Your task to perform on an android device: Add "bose soundsport free" to the cart on walmart.com Image 0: 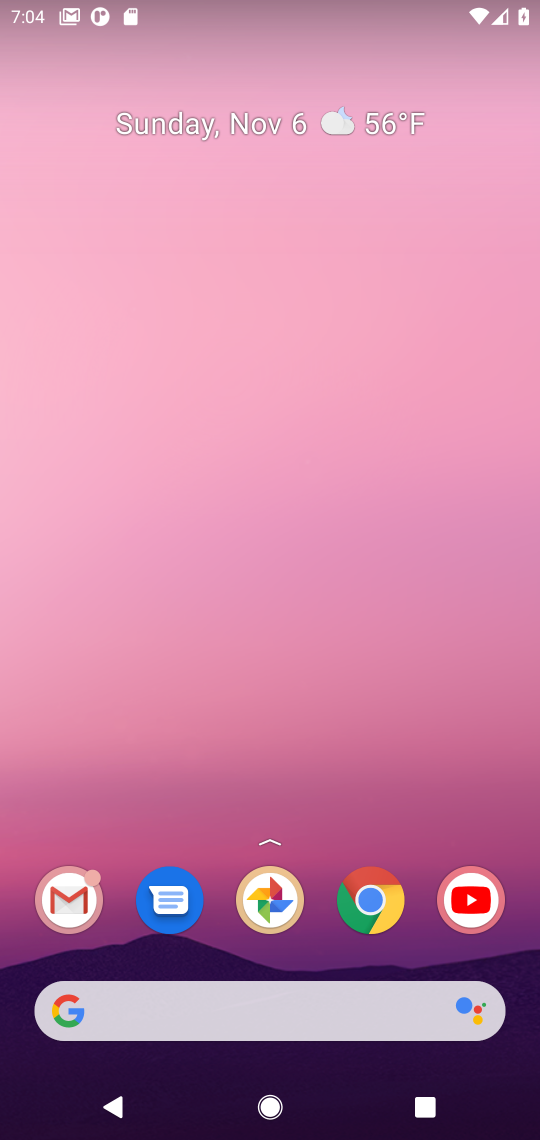
Step 0: drag from (324, 37) to (483, 769)
Your task to perform on an android device: Add "bose soundsport free" to the cart on walmart.com Image 1: 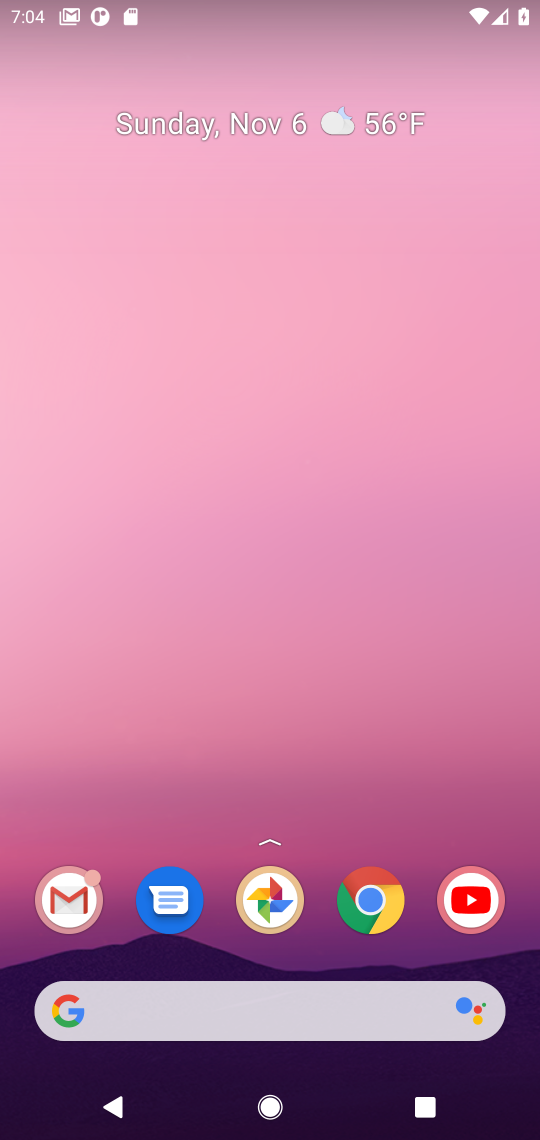
Step 1: drag from (312, 949) to (407, 119)
Your task to perform on an android device: Add "bose soundsport free" to the cart on walmart.com Image 2: 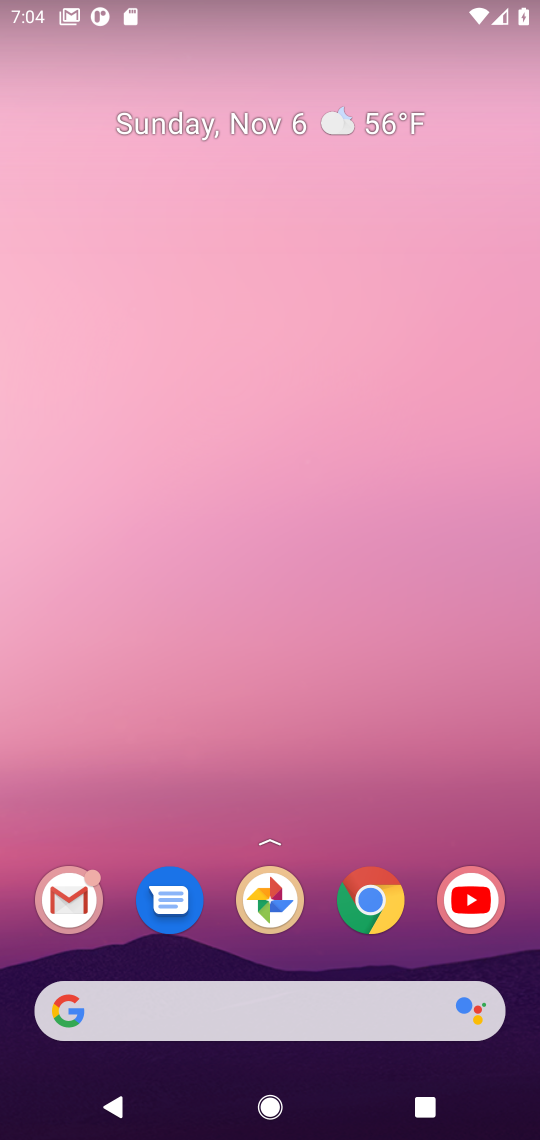
Step 2: drag from (228, 932) to (224, 66)
Your task to perform on an android device: Add "bose soundsport free" to the cart on walmart.com Image 3: 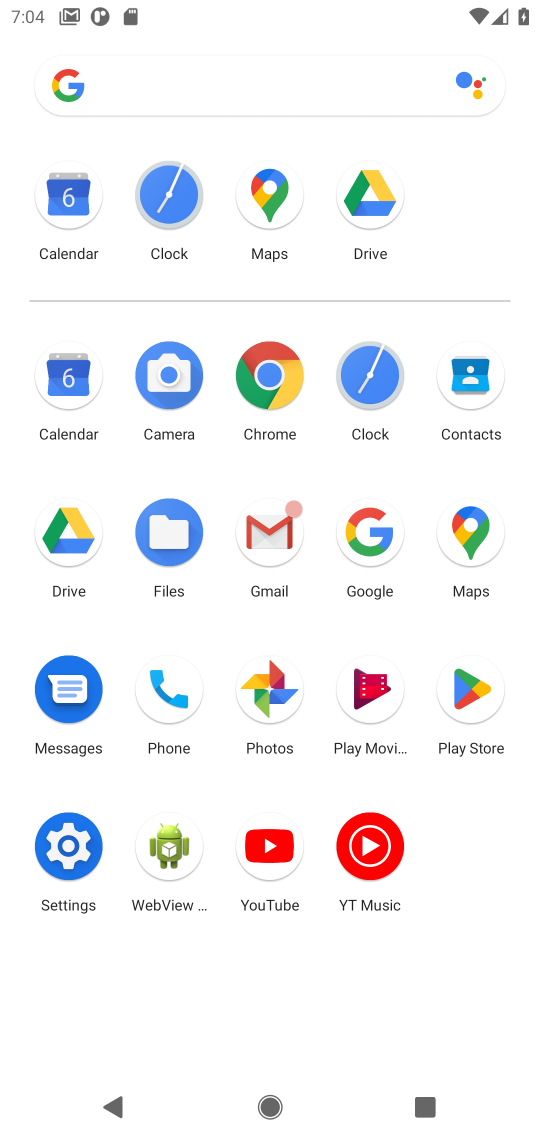
Step 3: click (276, 372)
Your task to perform on an android device: Add "bose soundsport free" to the cart on walmart.com Image 4: 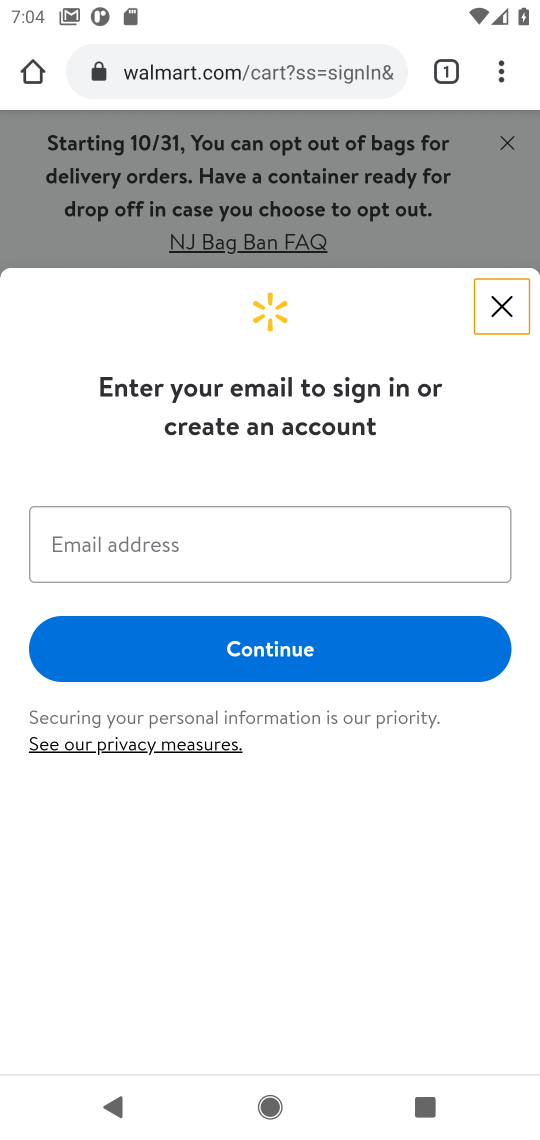
Step 4: click (326, 66)
Your task to perform on an android device: Add "bose soundsport free" to the cart on walmart.com Image 5: 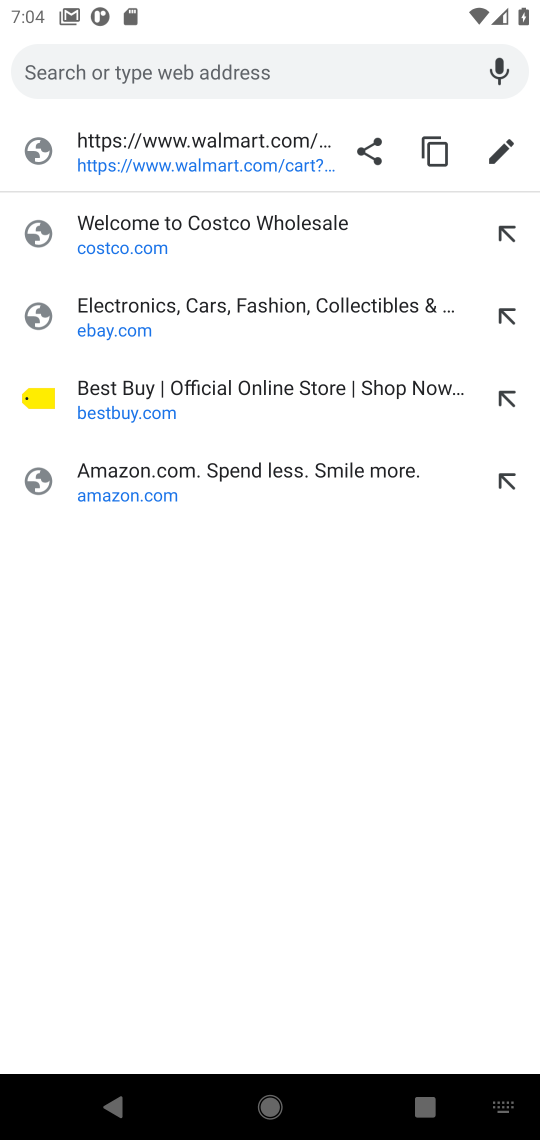
Step 5: type "walmart.com"
Your task to perform on an android device: Add "bose soundsport free" to the cart on walmart.com Image 6: 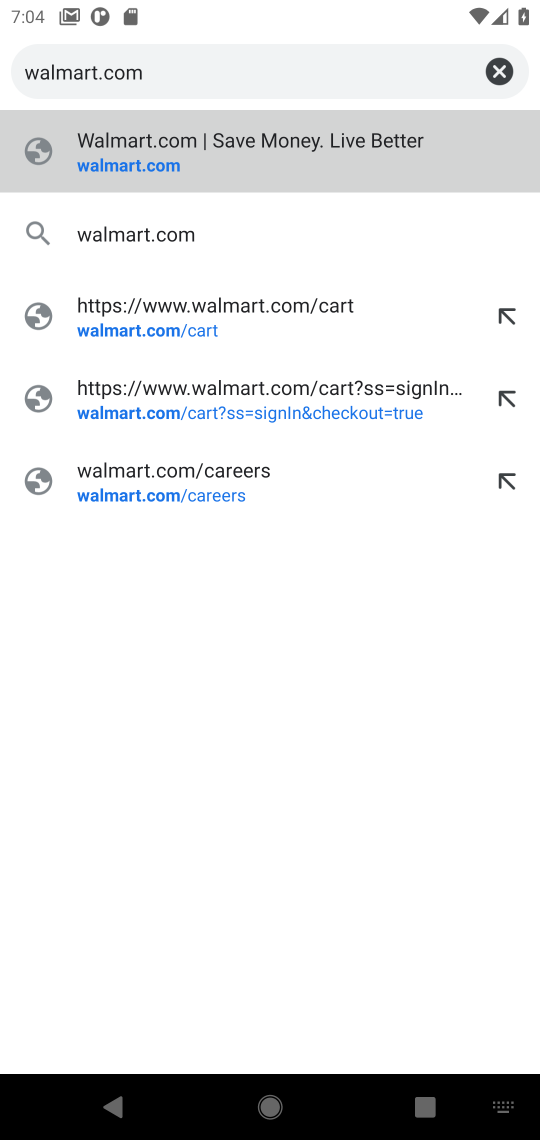
Step 6: press enter
Your task to perform on an android device: Add "bose soundsport free" to the cart on walmart.com Image 7: 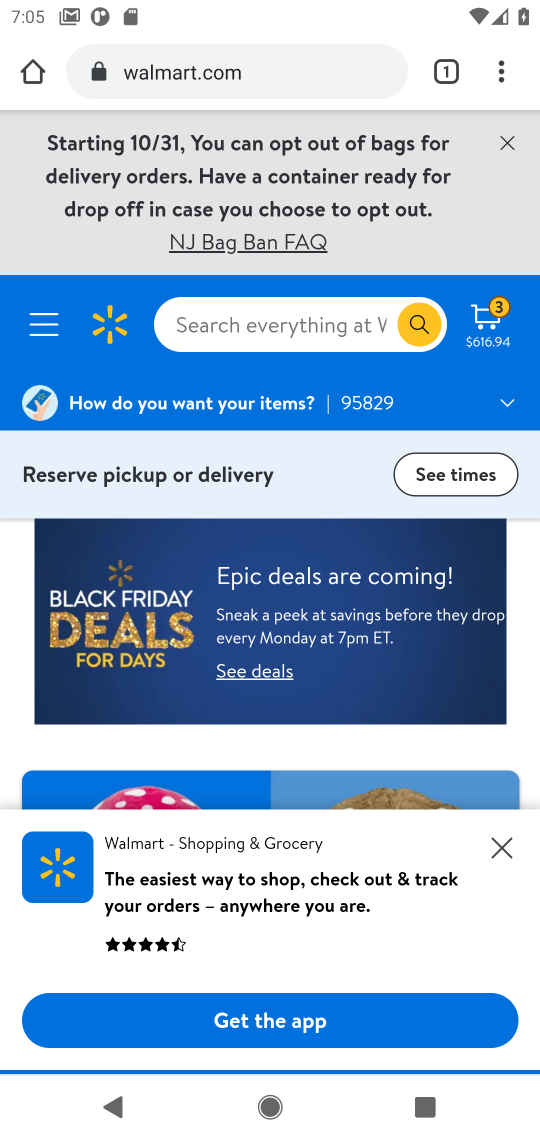
Step 7: click (321, 317)
Your task to perform on an android device: Add "bose soundsport free" to the cart on walmart.com Image 8: 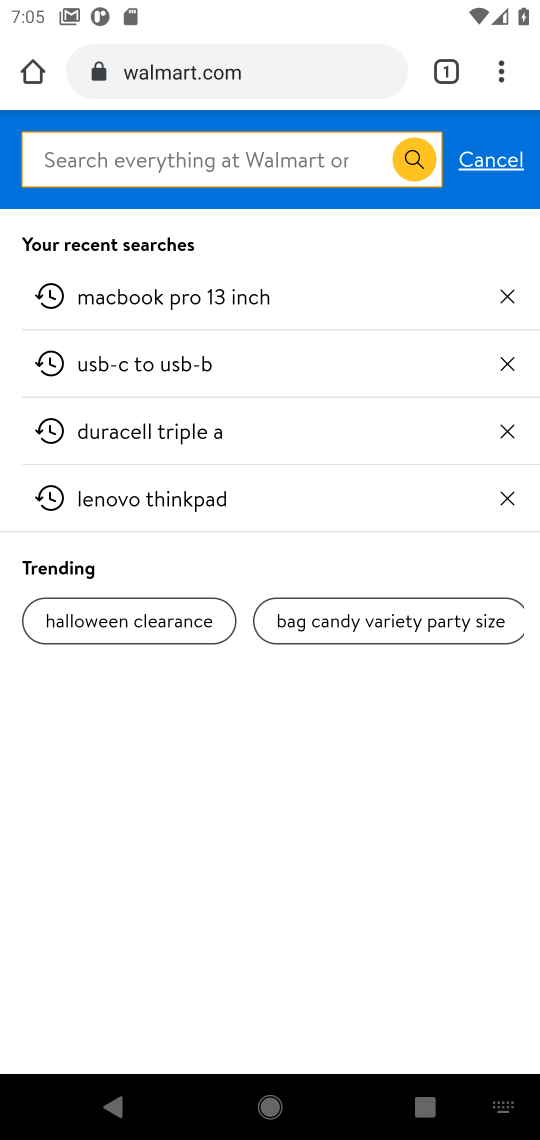
Step 8: type "bose soundsport free"
Your task to perform on an android device: Add "bose soundsport free" to the cart on walmart.com Image 9: 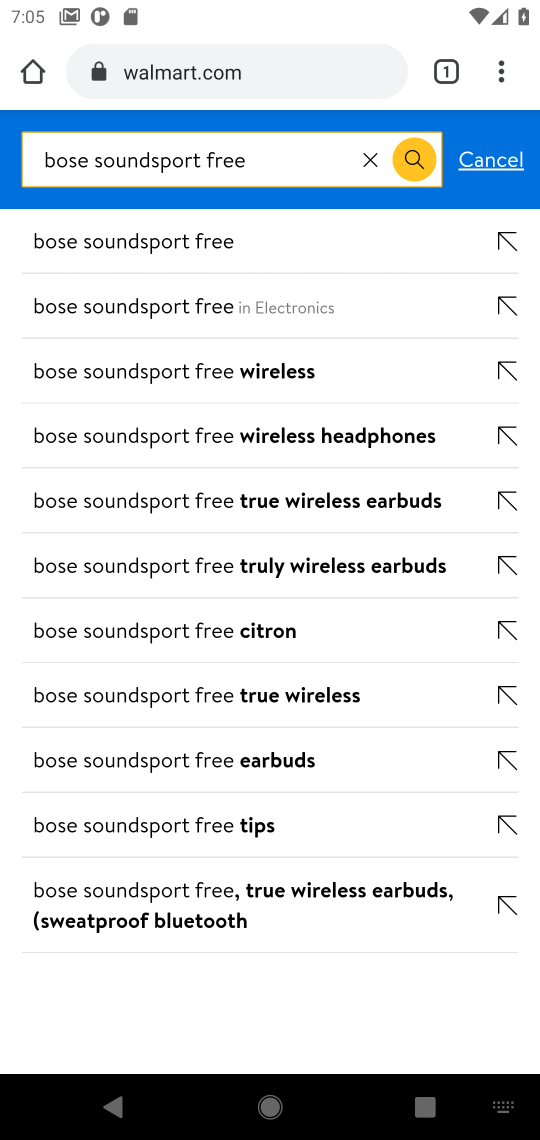
Step 9: press enter
Your task to perform on an android device: Add "bose soundsport free" to the cart on walmart.com Image 10: 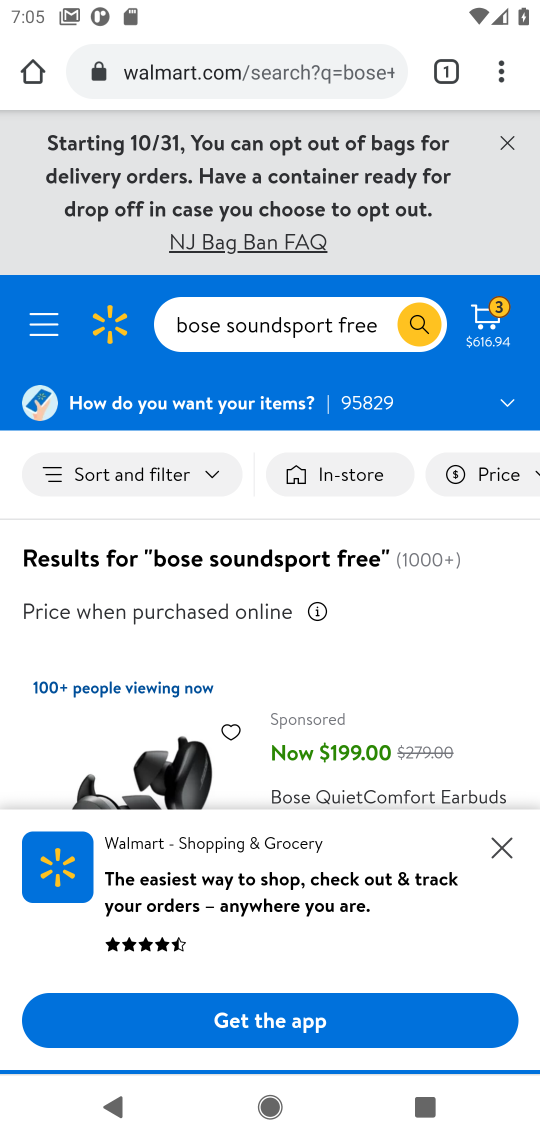
Step 10: drag from (368, 672) to (380, 156)
Your task to perform on an android device: Add "bose soundsport free" to the cart on walmart.com Image 11: 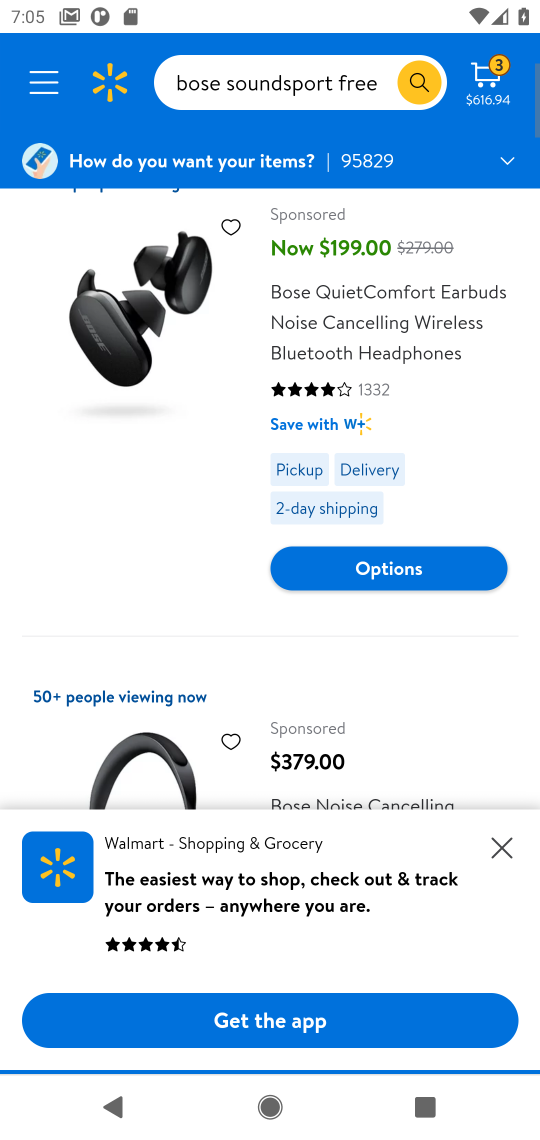
Step 11: drag from (240, 451) to (263, 128)
Your task to perform on an android device: Add "bose soundsport free" to the cart on walmart.com Image 12: 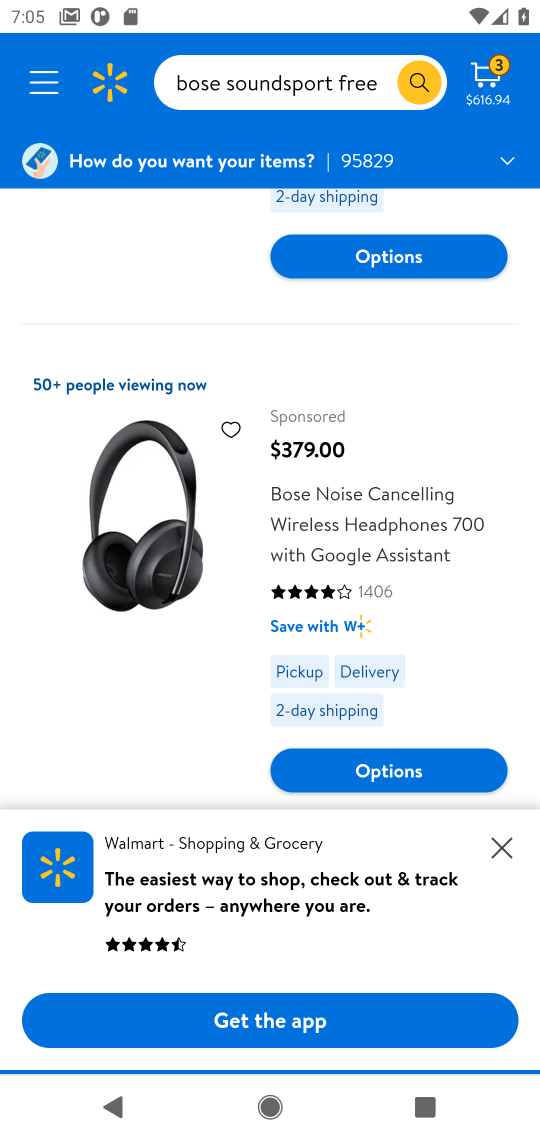
Step 12: drag from (186, 690) to (220, 92)
Your task to perform on an android device: Add "bose soundsport free" to the cart on walmart.com Image 13: 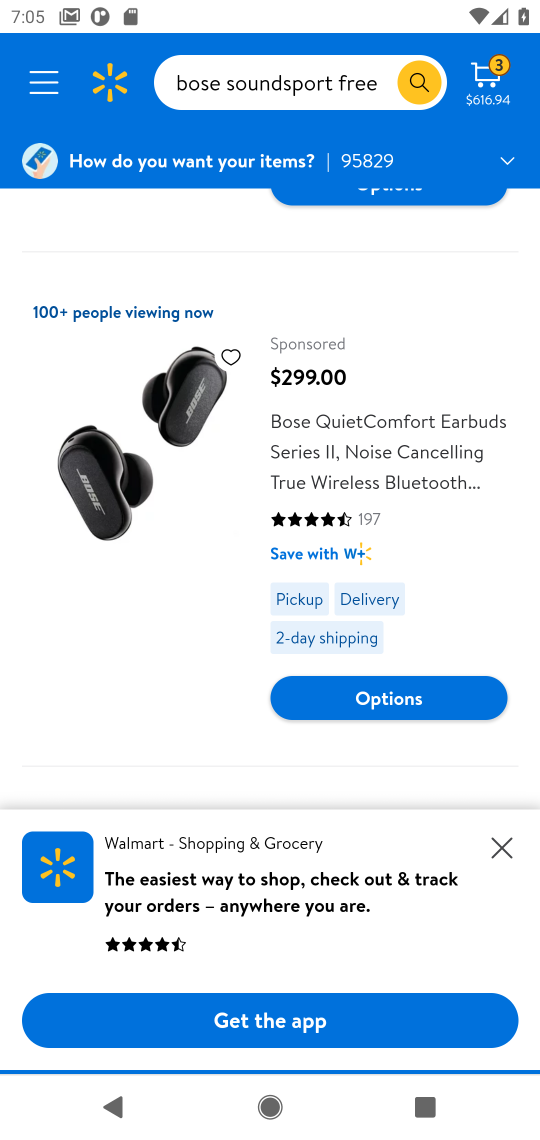
Step 13: drag from (168, 661) to (230, 94)
Your task to perform on an android device: Add "bose soundsport free" to the cart on walmart.com Image 14: 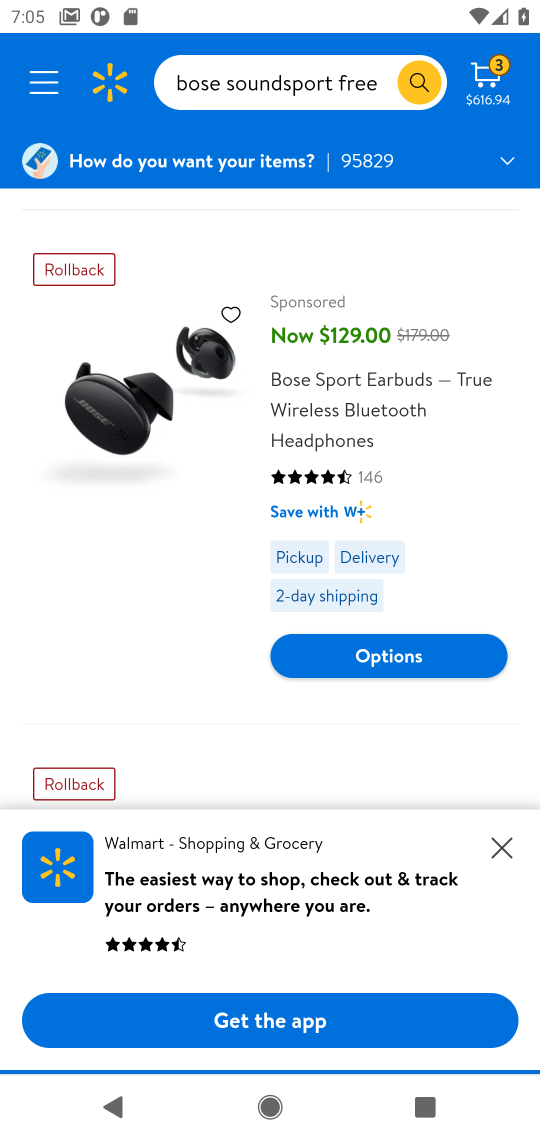
Step 14: drag from (166, 601) to (217, 75)
Your task to perform on an android device: Add "bose soundsport free" to the cart on walmart.com Image 15: 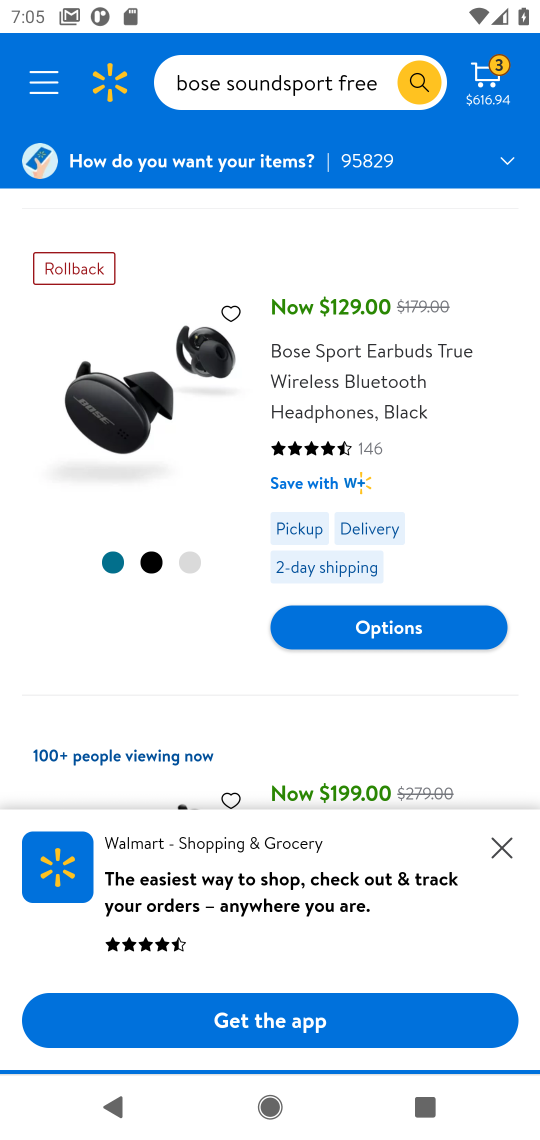
Step 15: drag from (161, 695) to (241, 144)
Your task to perform on an android device: Add "bose soundsport free" to the cart on walmart.com Image 16: 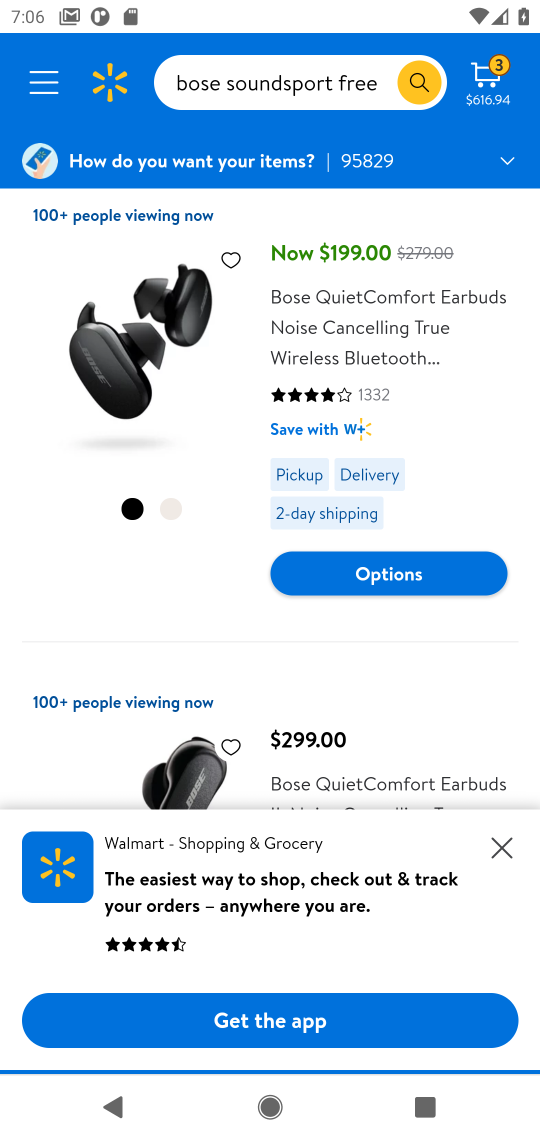
Step 16: drag from (163, 644) to (218, 780)
Your task to perform on an android device: Add "bose soundsport free" to the cart on walmart.com Image 17: 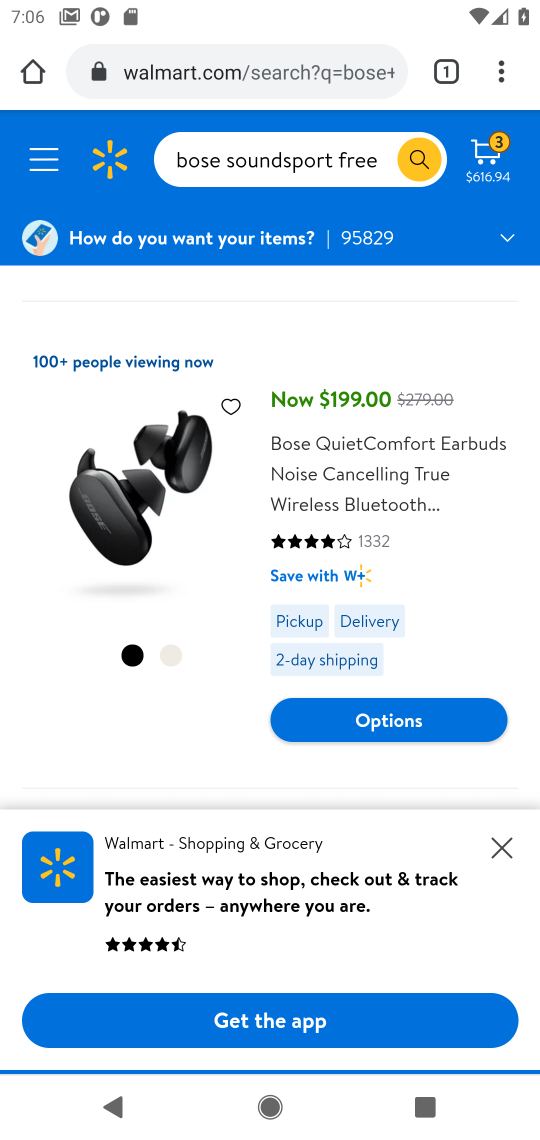
Step 17: drag from (425, 343) to (390, 914)
Your task to perform on an android device: Add "bose soundsport free" to the cart on walmart.com Image 18: 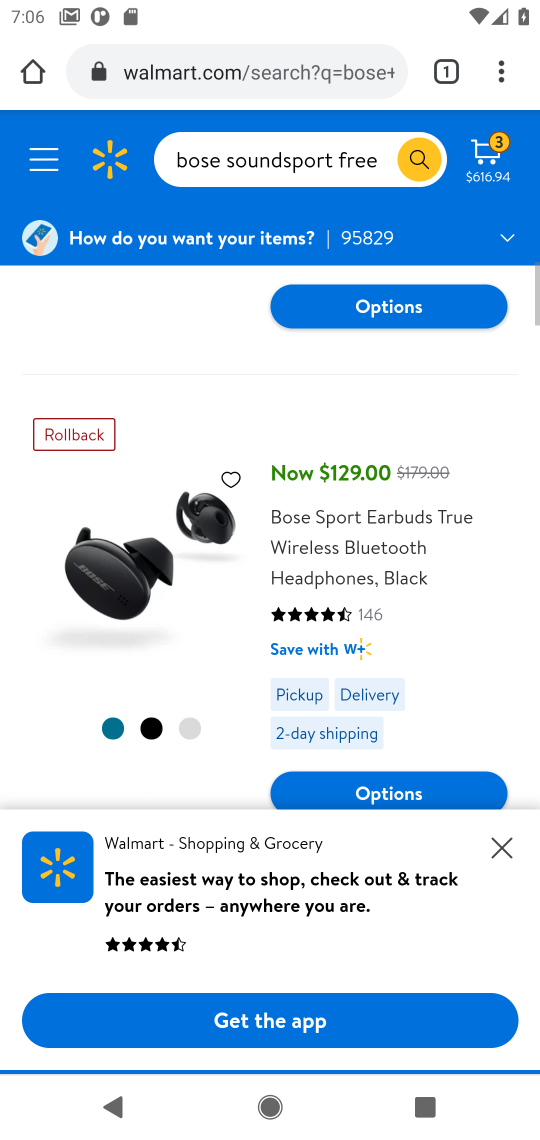
Step 18: drag from (356, 395) to (374, 885)
Your task to perform on an android device: Add "bose soundsport free" to the cart on walmart.com Image 19: 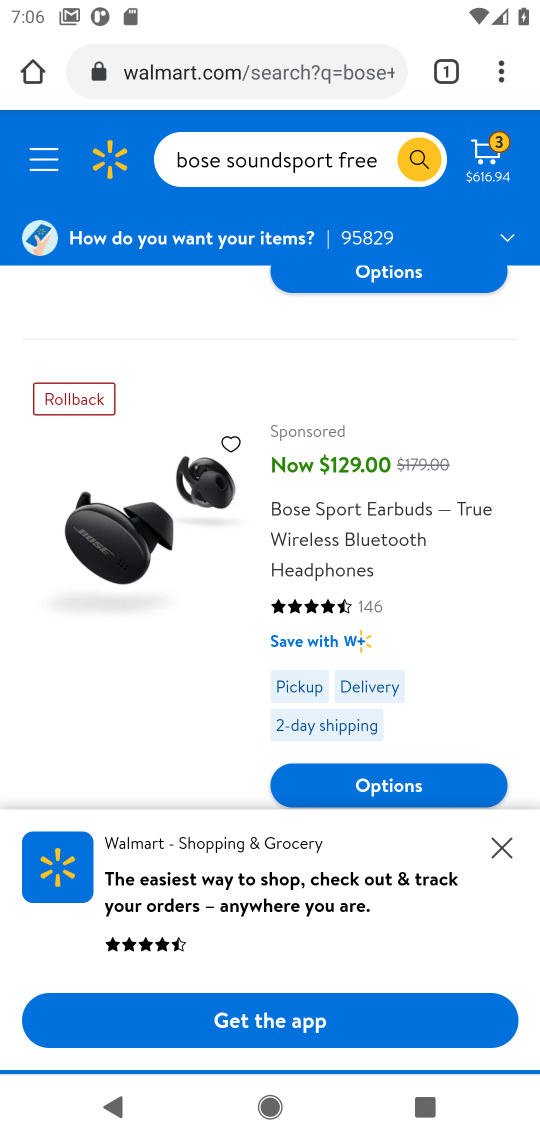
Step 19: drag from (352, 666) to (354, 17)
Your task to perform on an android device: Add "bose soundsport free" to the cart on walmart.com Image 20: 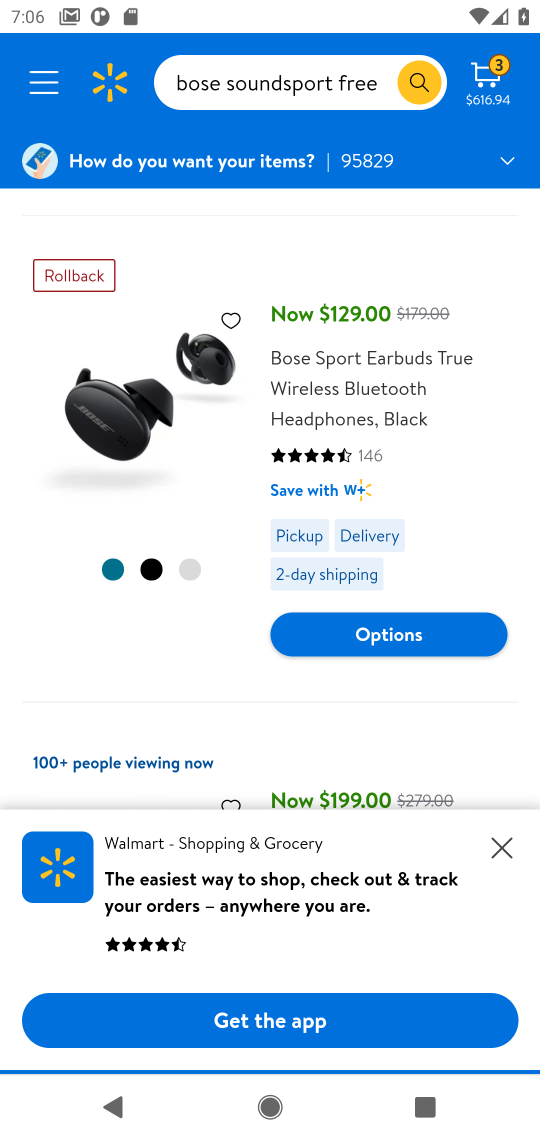
Step 20: drag from (361, 408) to (390, 460)
Your task to perform on an android device: Add "bose soundsport free" to the cart on walmart.com Image 21: 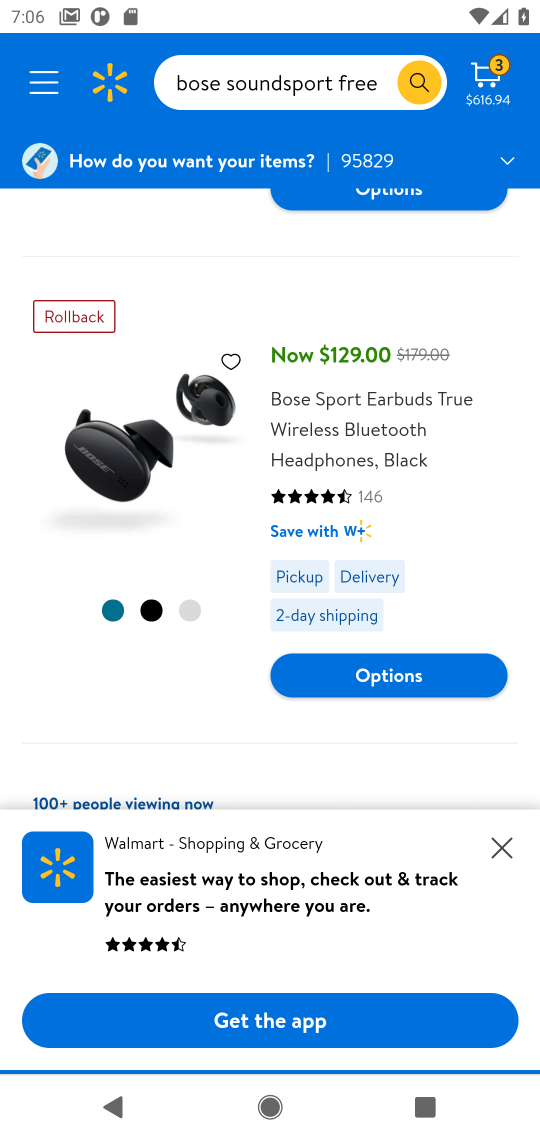
Step 21: click (365, 411)
Your task to perform on an android device: Add "bose soundsport free" to the cart on walmart.com Image 22: 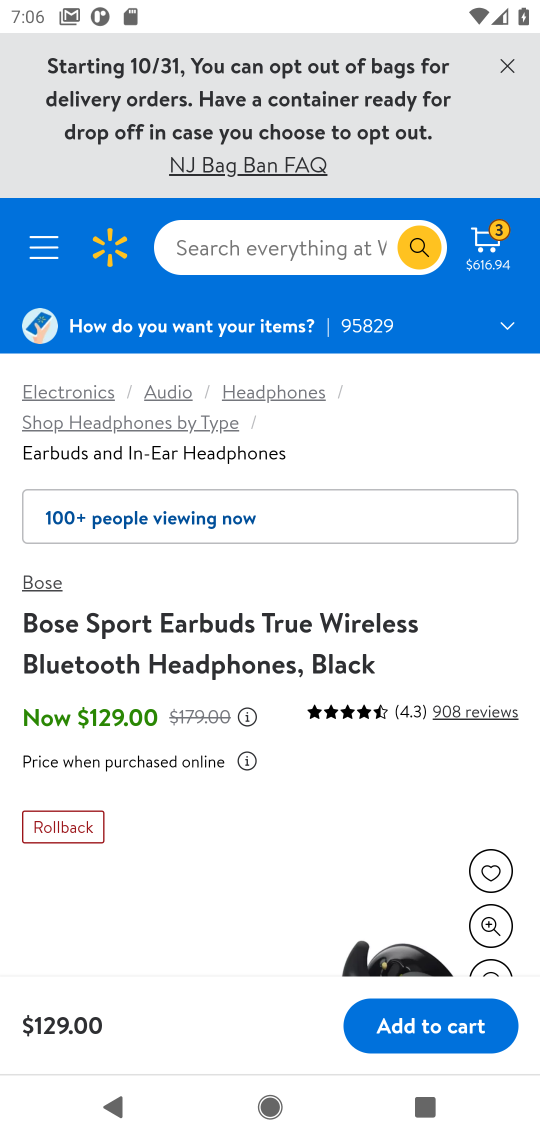
Step 22: task complete